Your task to perform on an android device: visit the assistant section in the google photos Image 0: 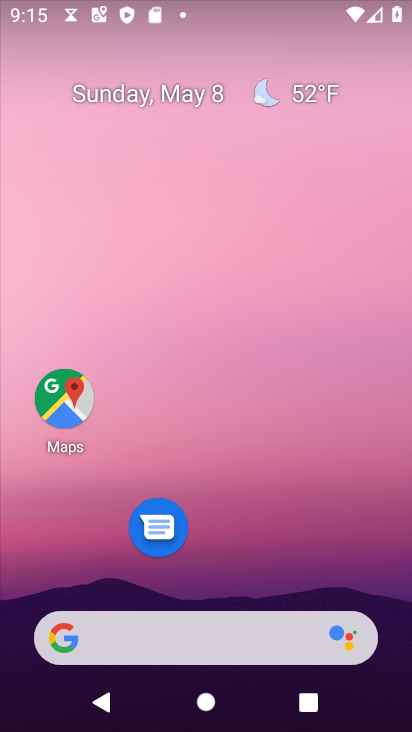
Step 0: drag from (263, 540) to (285, 26)
Your task to perform on an android device: visit the assistant section in the google photos Image 1: 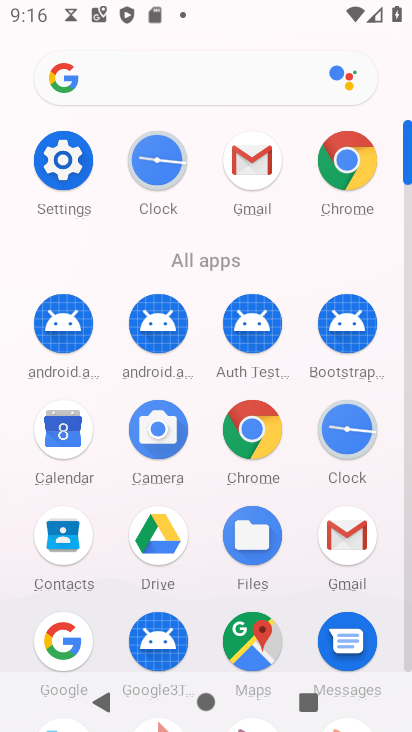
Step 1: drag from (207, 501) to (205, 274)
Your task to perform on an android device: visit the assistant section in the google photos Image 2: 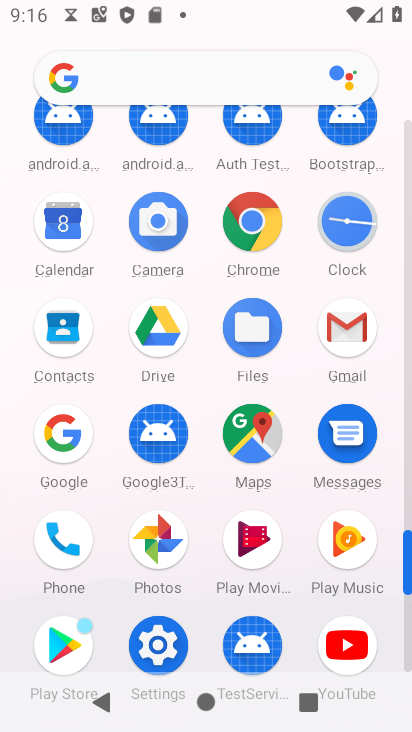
Step 2: click (159, 537)
Your task to perform on an android device: visit the assistant section in the google photos Image 3: 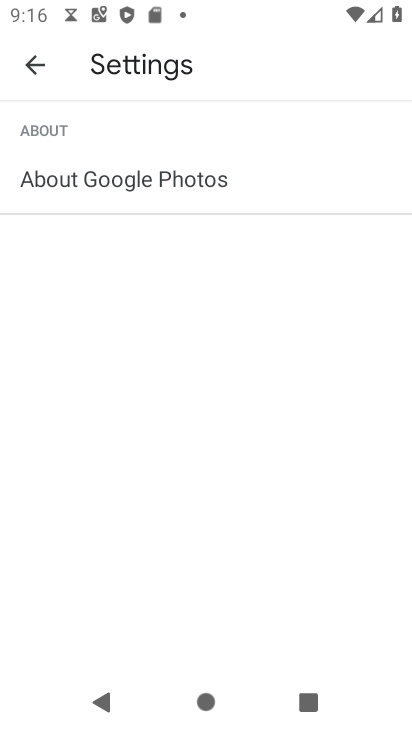
Step 3: press back button
Your task to perform on an android device: visit the assistant section in the google photos Image 4: 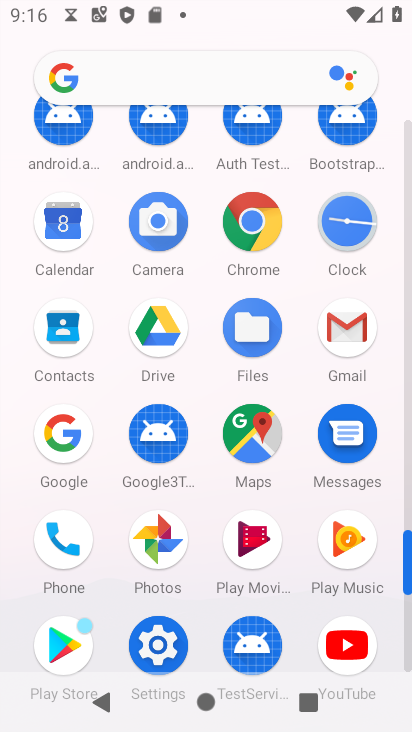
Step 4: click (157, 537)
Your task to perform on an android device: visit the assistant section in the google photos Image 5: 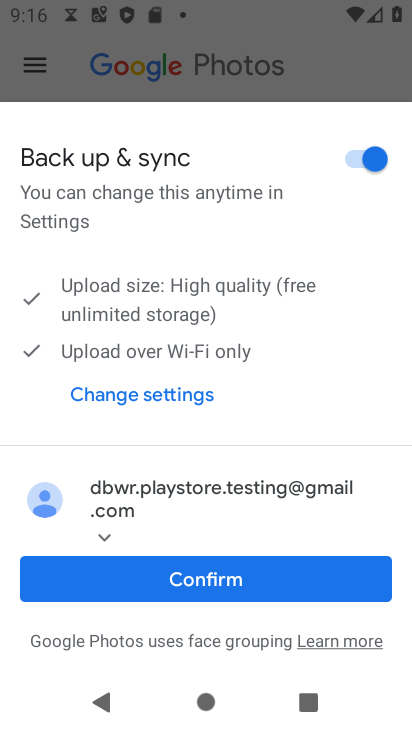
Step 5: click (212, 587)
Your task to perform on an android device: visit the assistant section in the google photos Image 6: 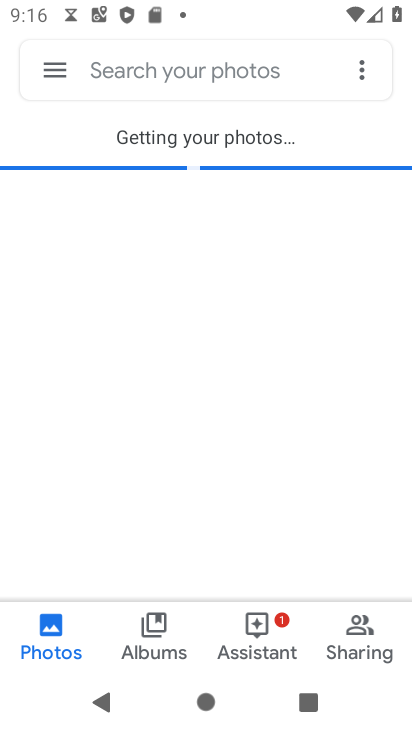
Step 6: click (264, 619)
Your task to perform on an android device: visit the assistant section in the google photos Image 7: 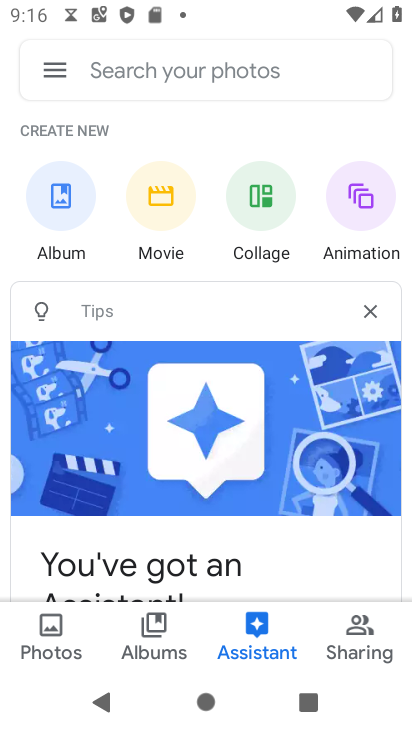
Step 7: task complete